Your task to perform on an android device: change the clock display to analog Image 0: 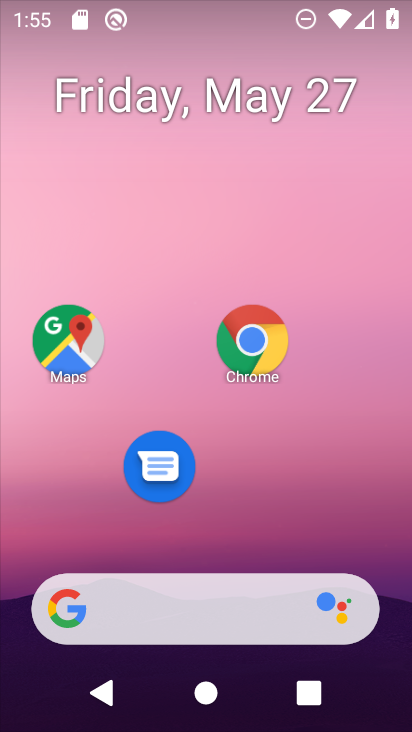
Step 0: drag from (304, 551) to (266, 95)
Your task to perform on an android device: change the clock display to analog Image 1: 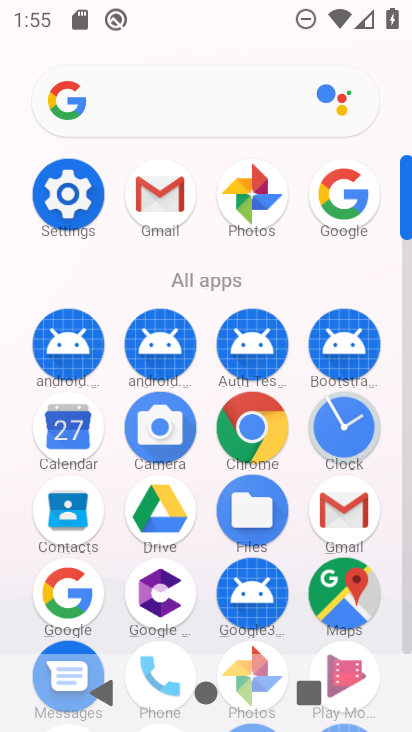
Step 1: click (346, 444)
Your task to perform on an android device: change the clock display to analog Image 2: 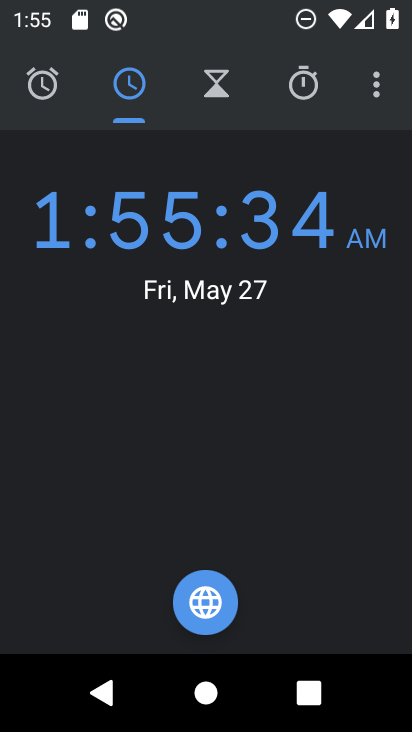
Step 2: click (379, 84)
Your task to perform on an android device: change the clock display to analog Image 3: 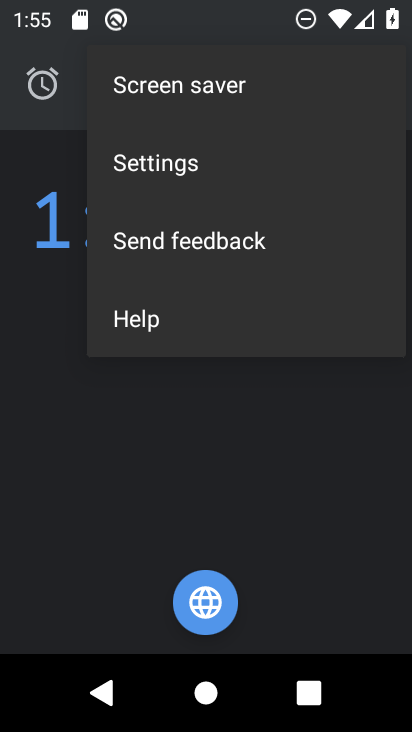
Step 3: click (213, 156)
Your task to perform on an android device: change the clock display to analog Image 4: 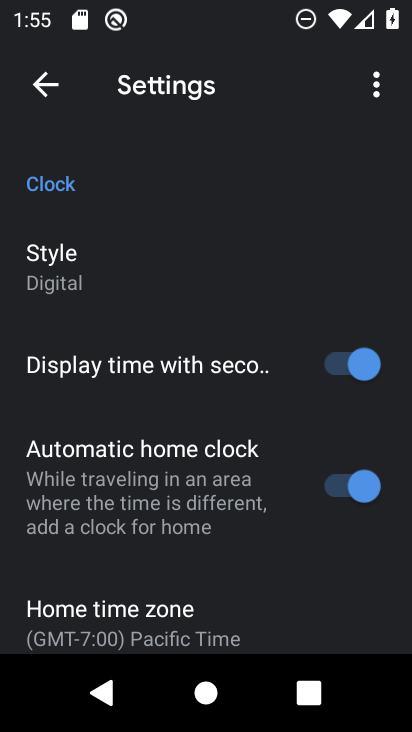
Step 4: click (120, 275)
Your task to perform on an android device: change the clock display to analog Image 5: 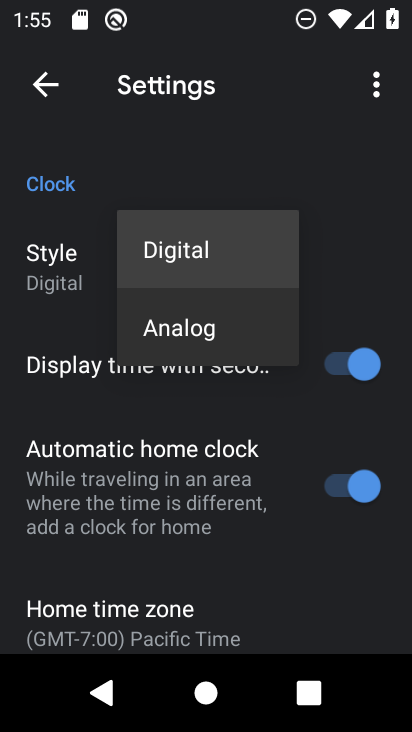
Step 5: click (145, 318)
Your task to perform on an android device: change the clock display to analog Image 6: 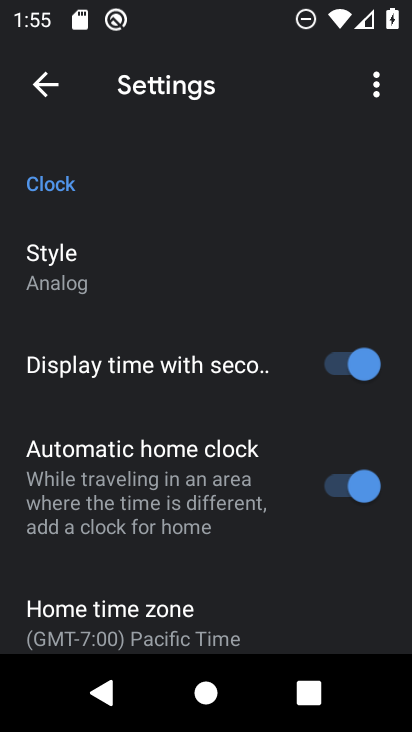
Step 6: task complete